Your task to perform on an android device: Open settings Image 0: 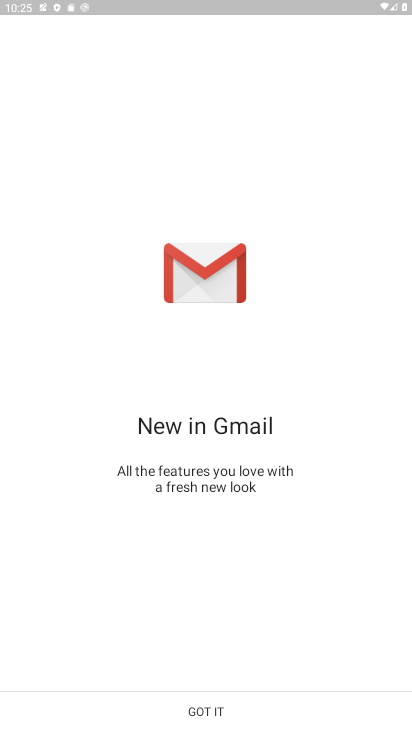
Step 0: click (247, 723)
Your task to perform on an android device: Open settings Image 1: 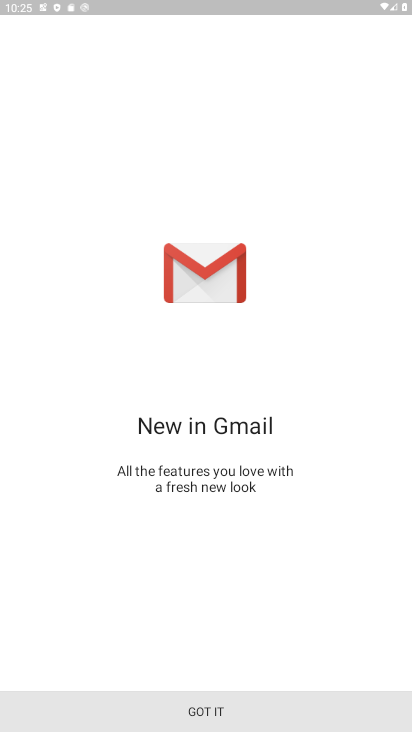
Step 1: click (251, 712)
Your task to perform on an android device: Open settings Image 2: 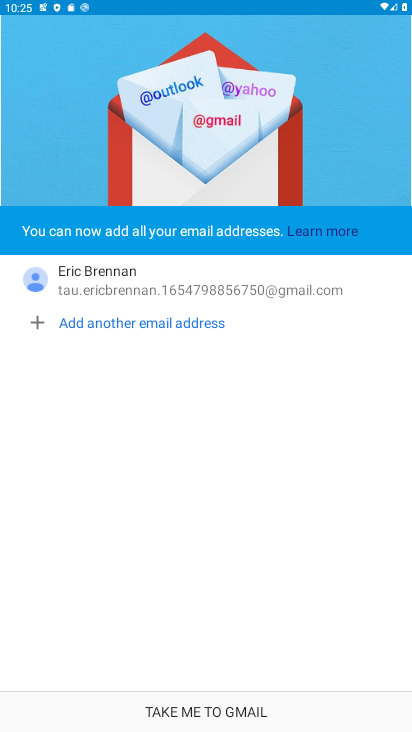
Step 2: click (253, 710)
Your task to perform on an android device: Open settings Image 3: 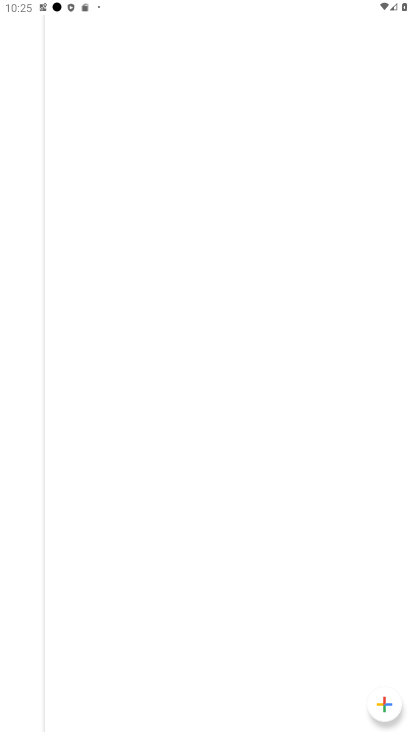
Step 3: press back button
Your task to perform on an android device: Open settings Image 4: 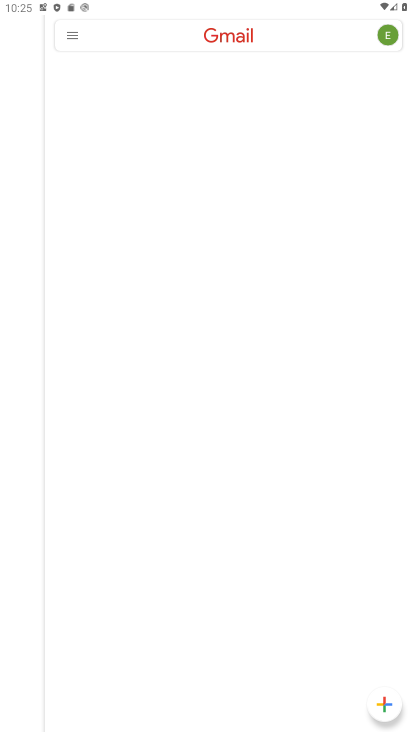
Step 4: press back button
Your task to perform on an android device: Open settings Image 5: 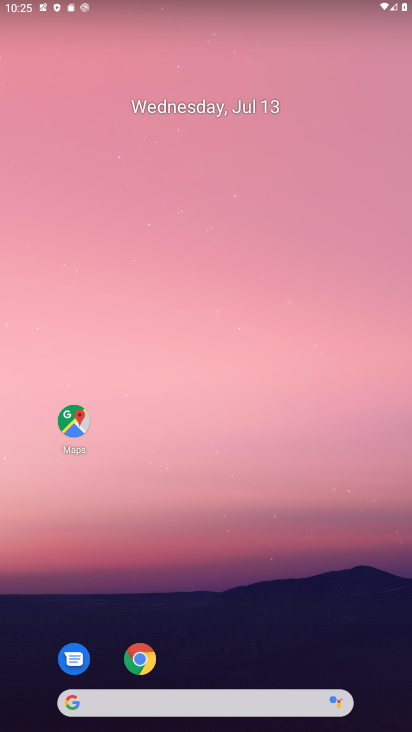
Step 5: drag from (252, 701) to (201, 185)
Your task to perform on an android device: Open settings Image 6: 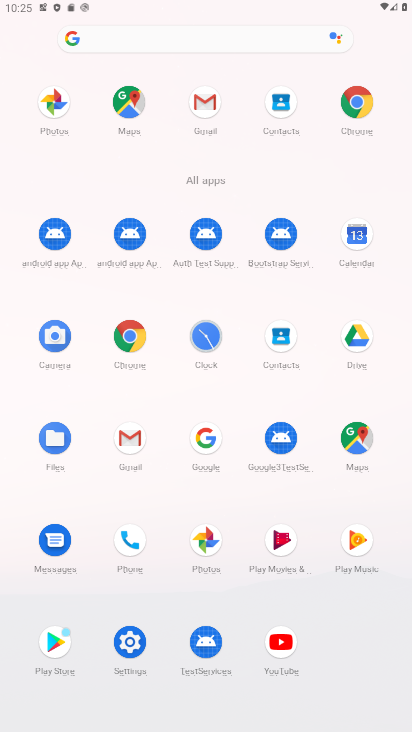
Step 6: click (146, 632)
Your task to perform on an android device: Open settings Image 7: 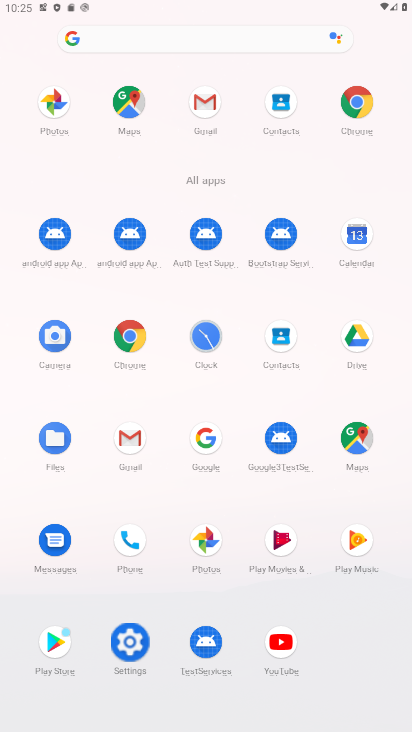
Step 7: click (135, 634)
Your task to perform on an android device: Open settings Image 8: 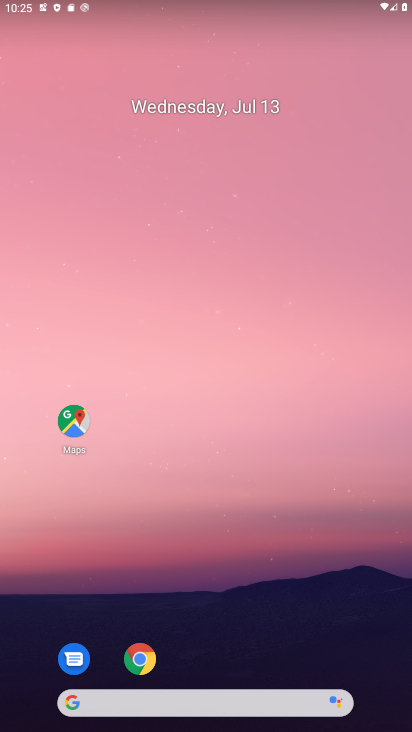
Step 8: drag from (252, 595) to (178, 146)
Your task to perform on an android device: Open settings Image 9: 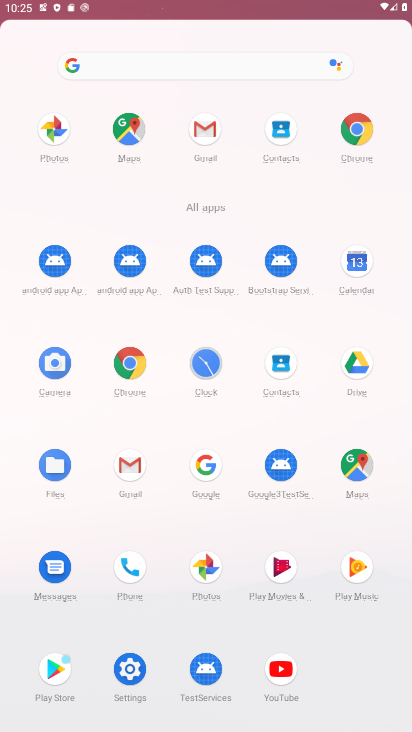
Step 9: drag from (285, 565) to (228, 64)
Your task to perform on an android device: Open settings Image 10: 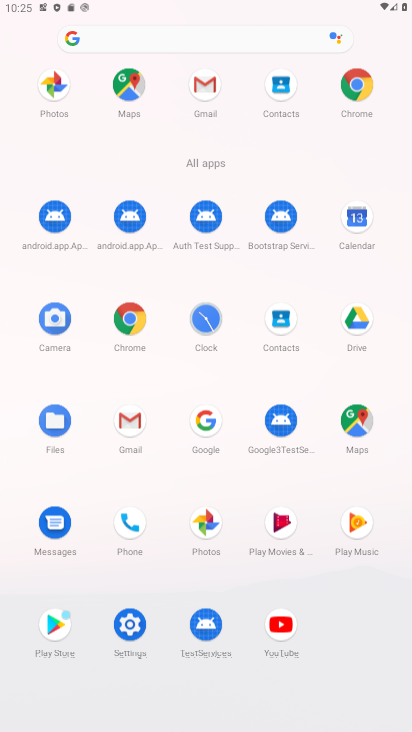
Step 10: drag from (323, 569) to (318, 112)
Your task to perform on an android device: Open settings Image 11: 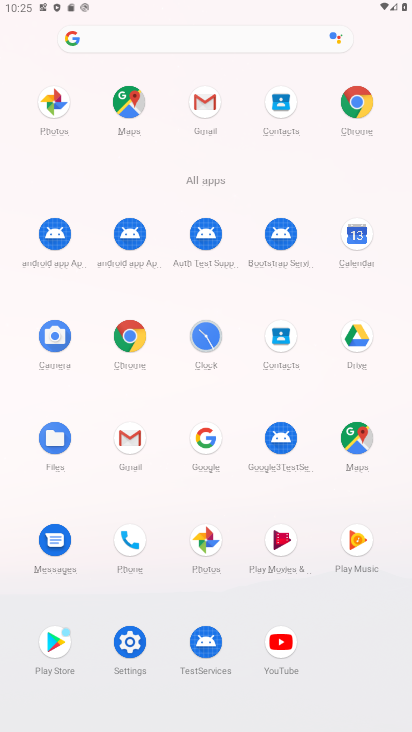
Step 11: click (141, 640)
Your task to perform on an android device: Open settings Image 12: 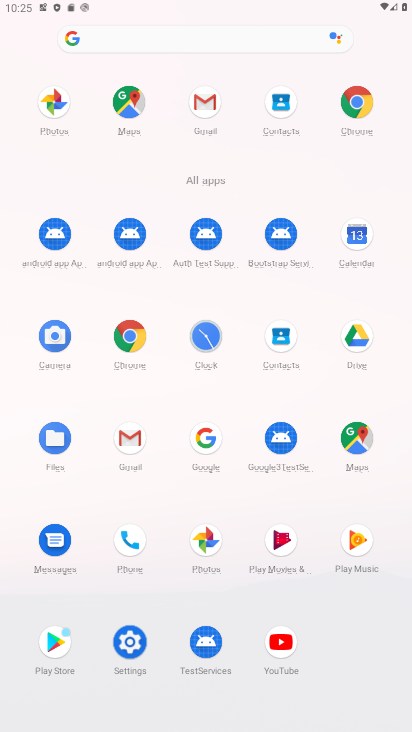
Step 12: click (140, 640)
Your task to perform on an android device: Open settings Image 13: 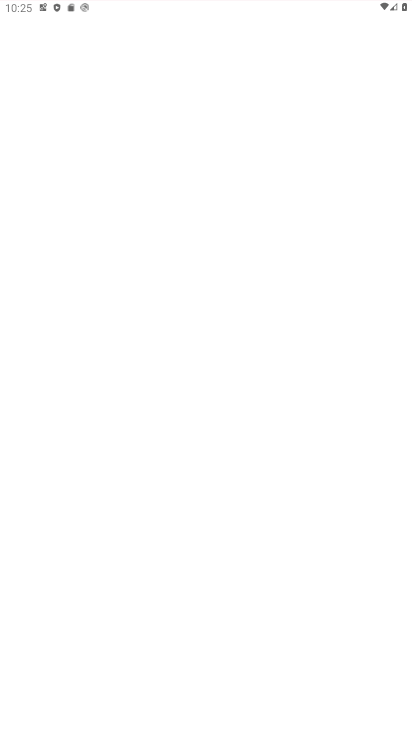
Step 13: click (141, 640)
Your task to perform on an android device: Open settings Image 14: 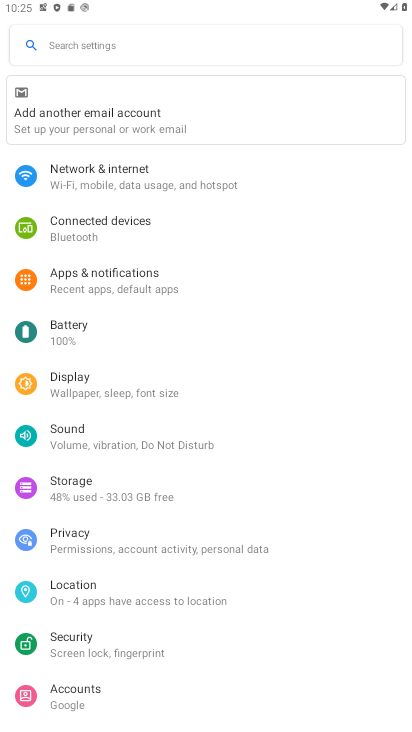
Step 14: task complete